Your task to perform on an android device: Open the stopwatch Image 0: 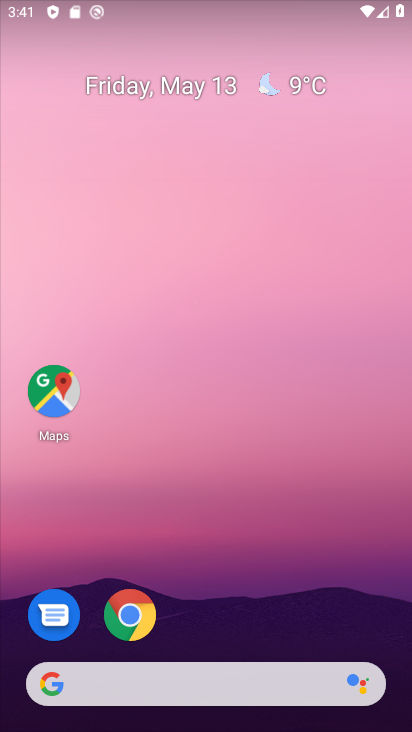
Step 0: drag from (249, 618) to (259, 181)
Your task to perform on an android device: Open the stopwatch Image 1: 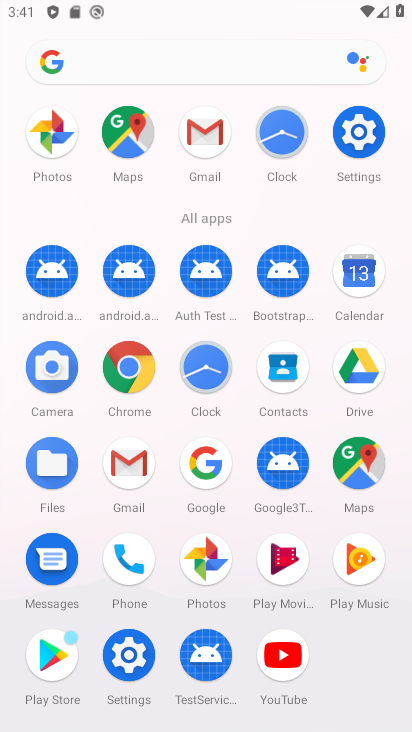
Step 1: click (205, 370)
Your task to perform on an android device: Open the stopwatch Image 2: 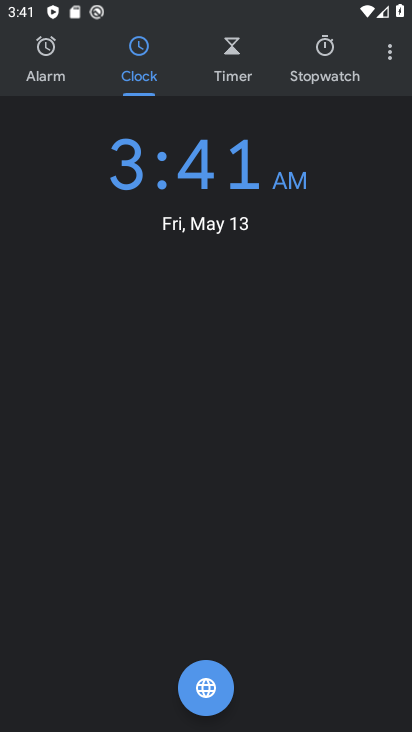
Step 2: click (332, 49)
Your task to perform on an android device: Open the stopwatch Image 3: 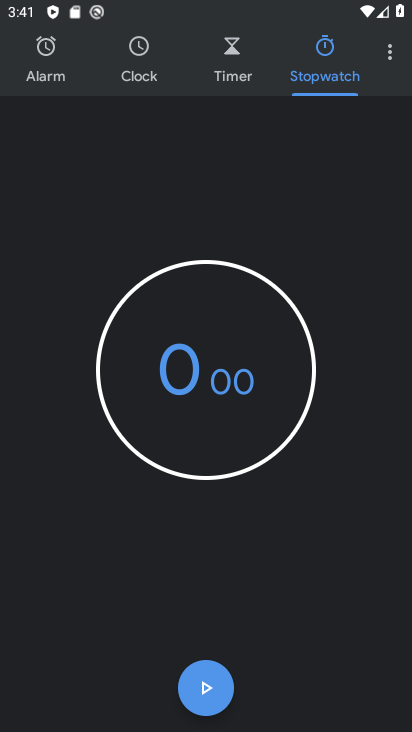
Step 3: task complete